Your task to perform on an android device: move a message to another label in the gmail app Image 0: 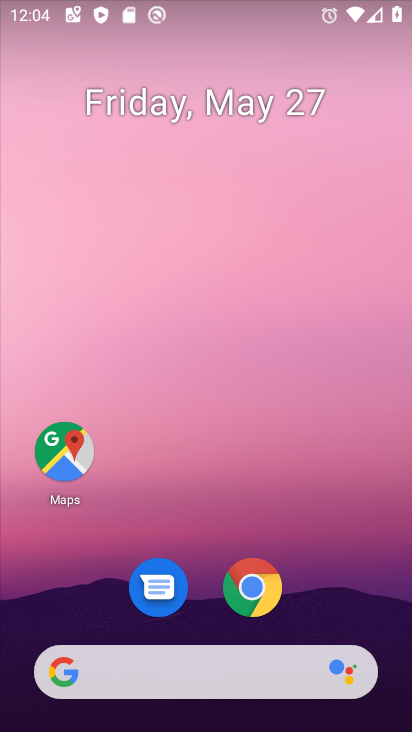
Step 0: drag from (252, 668) to (290, 37)
Your task to perform on an android device: move a message to another label in the gmail app Image 1: 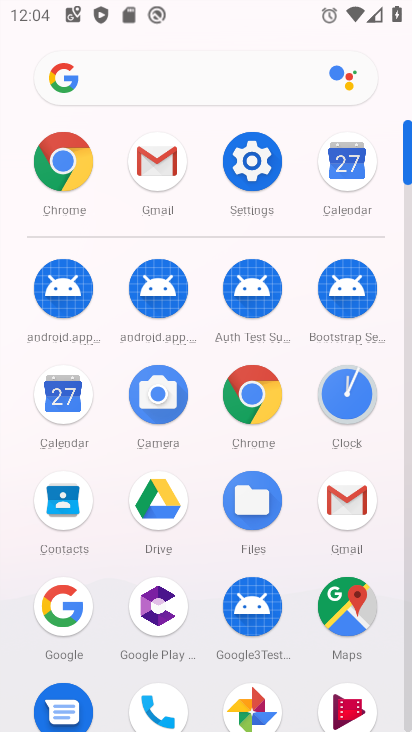
Step 1: click (155, 176)
Your task to perform on an android device: move a message to another label in the gmail app Image 2: 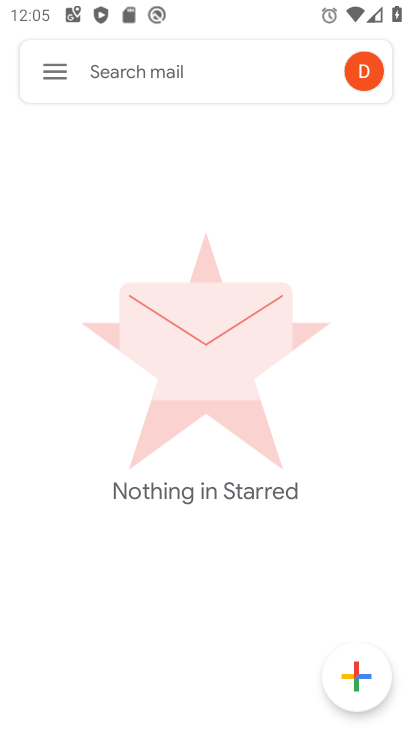
Step 2: click (45, 77)
Your task to perform on an android device: move a message to another label in the gmail app Image 3: 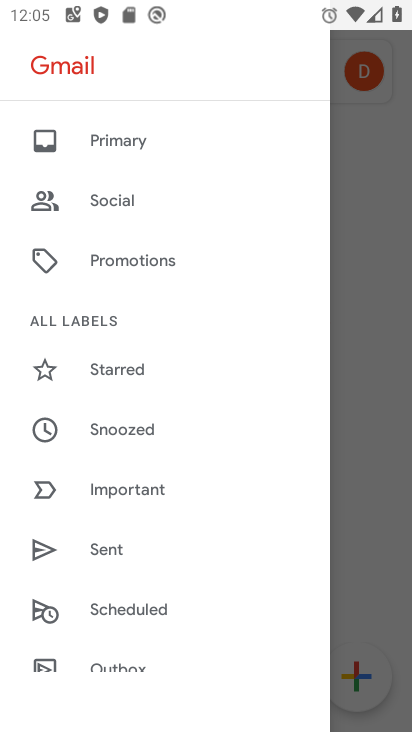
Step 3: drag from (102, 487) to (188, 291)
Your task to perform on an android device: move a message to another label in the gmail app Image 4: 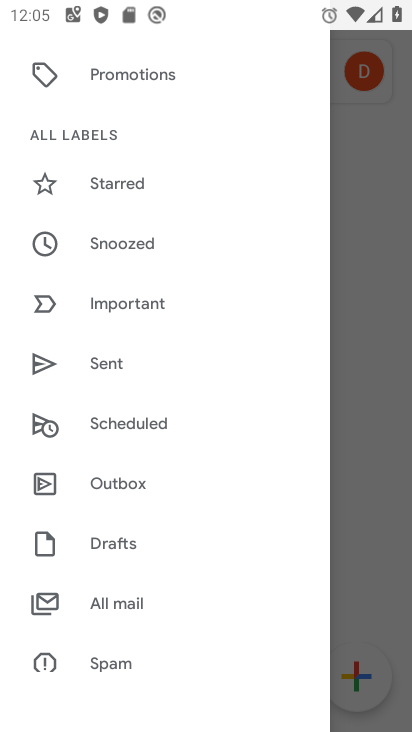
Step 4: drag from (116, 566) to (179, 471)
Your task to perform on an android device: move a message to another label in the gmail app Image 5: 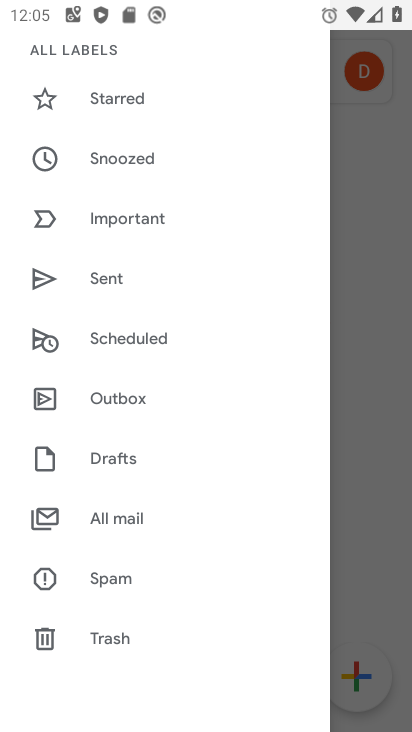
Step 5: drag from (122, 582) to (262, 121)
Your task to perform on an android device: move a message to another label in the gmail app Image 6: 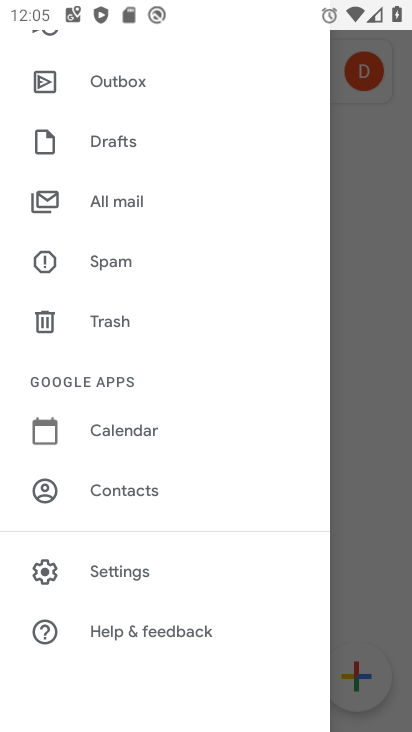
Step 6: click (115, 570)
Your task to perform on an android device: move a message to another label in the gmail app Image 7: 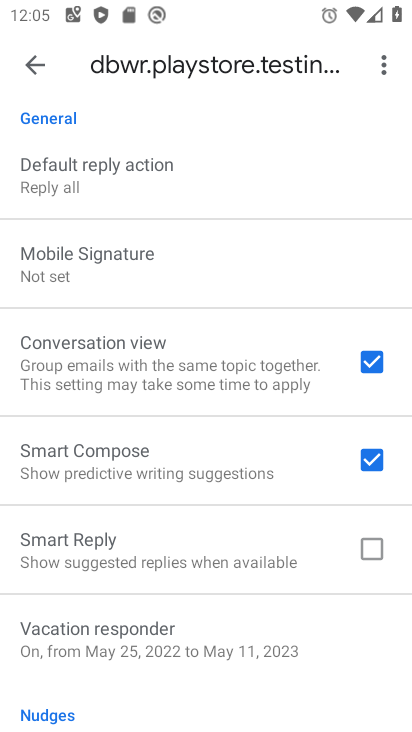
Step 7: drag from (147, 638) to (154, 684)
Your task to perform on an android device: move a message to another label in the gmail app Image 8: 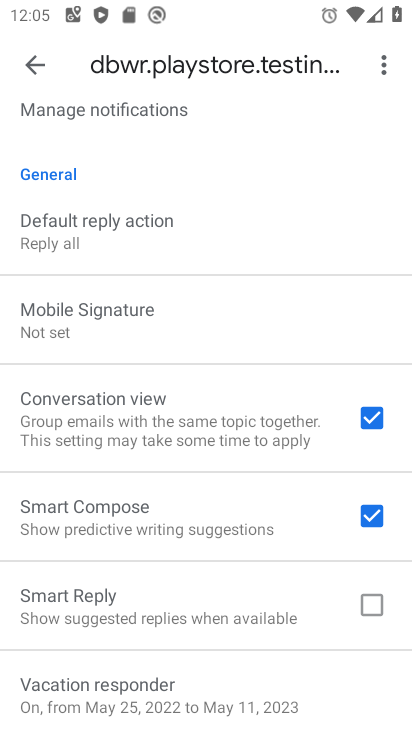
Step 8: drag from (122, 247) to (122, 418)
Your task to perform on an android device: move a message to another label in the gmail app Image 9: 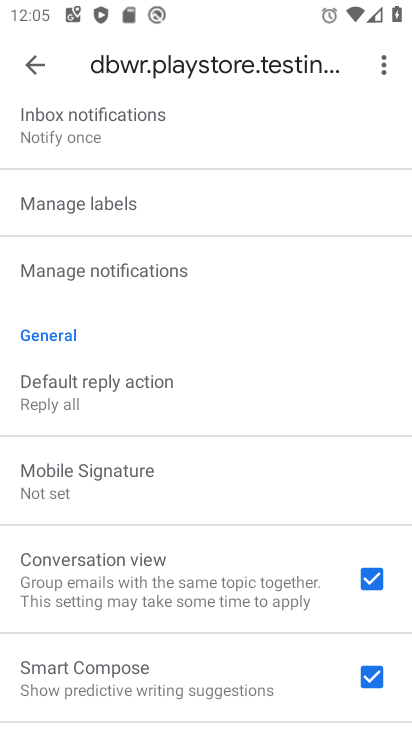
Step 9: click (116, 196)
Your task to perform on an android device: move a message to another label in the gmail app Image 10: 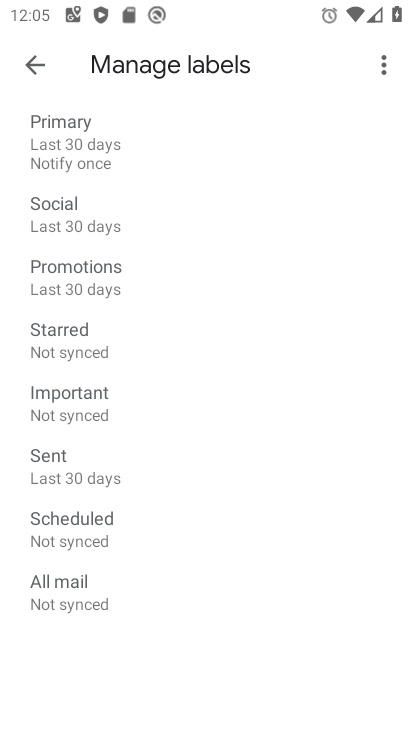
Step 10: click (134, 161)
Your task to perform on an android device: move a message to another label in the gmail app Image 11: 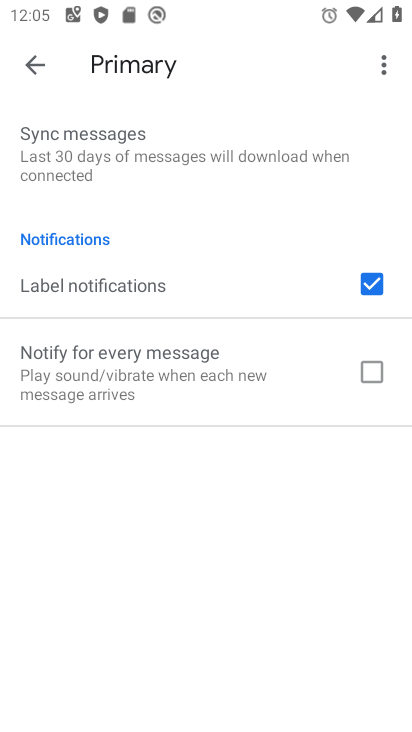
Step 11: task complete